Your task to perform on an android device: check out phone information Image 0: 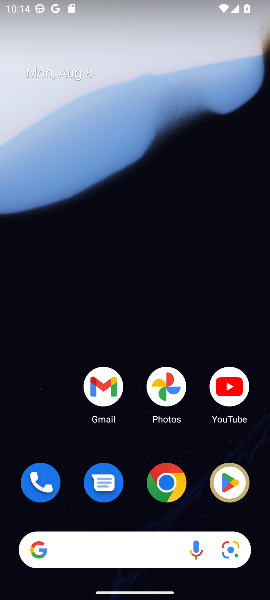
Step 0: drag from (139, 444) to (250, 11)
Your task to perform on an android device: check out phone information Image 1: 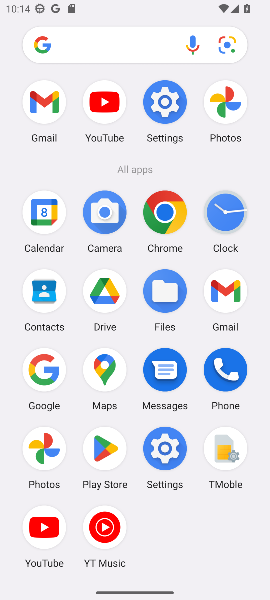
Step 1: click (164, 457)
Your task to perform on an android device: check out phone information Image 2: 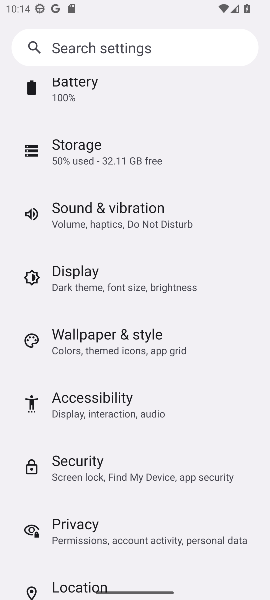
Step 2: drag from (88, 549) to (76, 219)
Your task to perform on an android device: check out phone information Image 3: 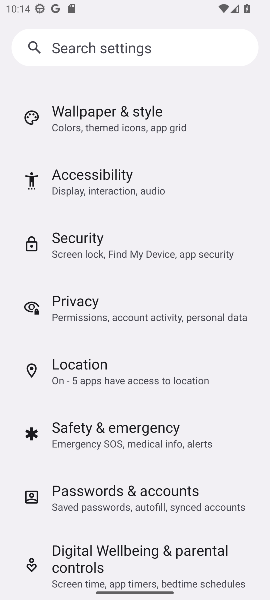
Step 3: drag from (126, 530) to (120, 215)
Your task to perform on an android device: check out phone information Image 4: 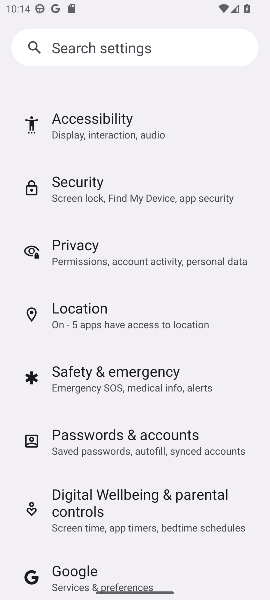
Step 4: drag from (89, 458) to (94, 186)
Your task to perform on an android device: check out phone information Image 5: 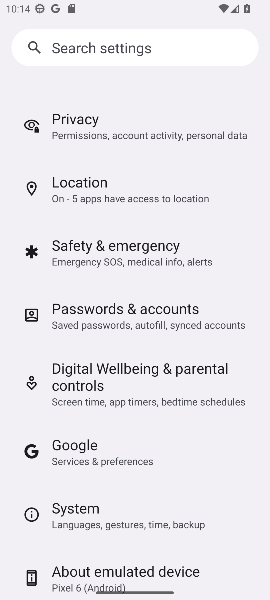
Step 5: drag from (116, 516) to (127, 312)
Your task to perform on an android device: check out phone information Image 6: 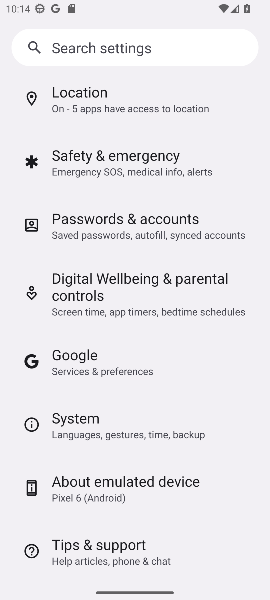
Step 6: click (102, 483)
Your task to perform on an android device: check out phone information Image 7: 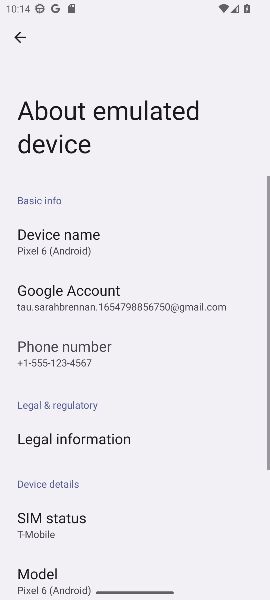
Step 7: task complete